Your task to perform on an android device: remove spam from my inbox in the gmail app Image 0: 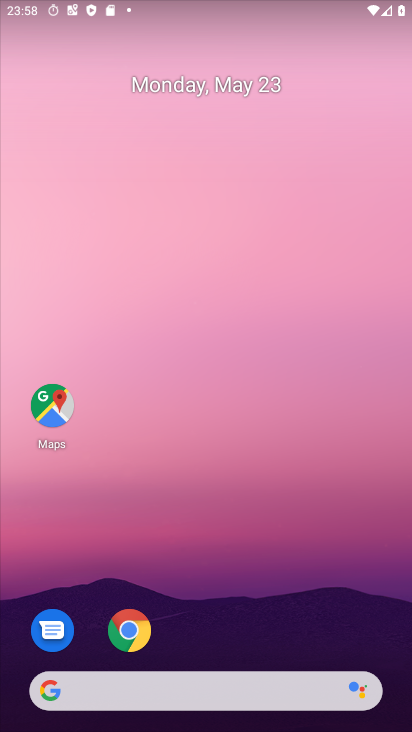
Step 0: drag from (339, 639) to (356, 10)
Your task to perform on an android device: remove spam from my inbox in the gmail app Image 1: 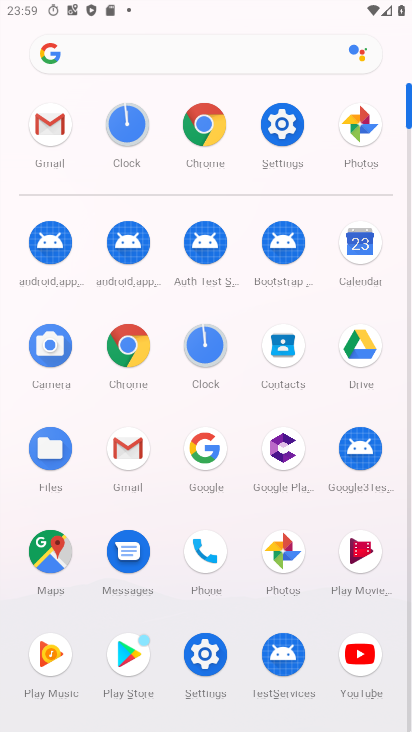
Step 1: click (48, 142)
Your task to perform on an android device: remove spam from my inbox in the gmail app Image 2: 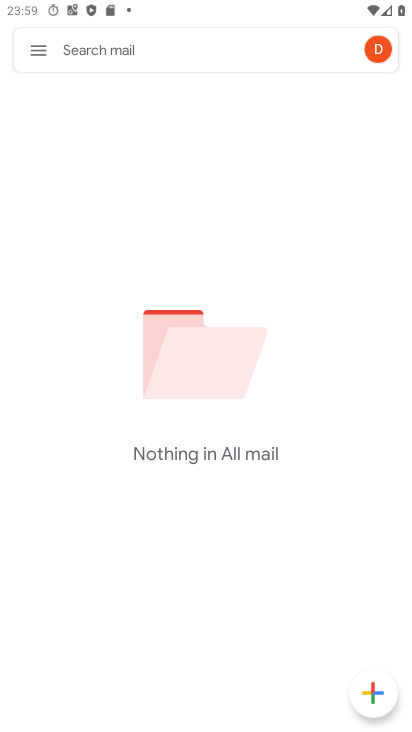
Step 2: click (41, 52)
Your task to perform on an android device: remove spam from my inbox in the gmail app Image 3: 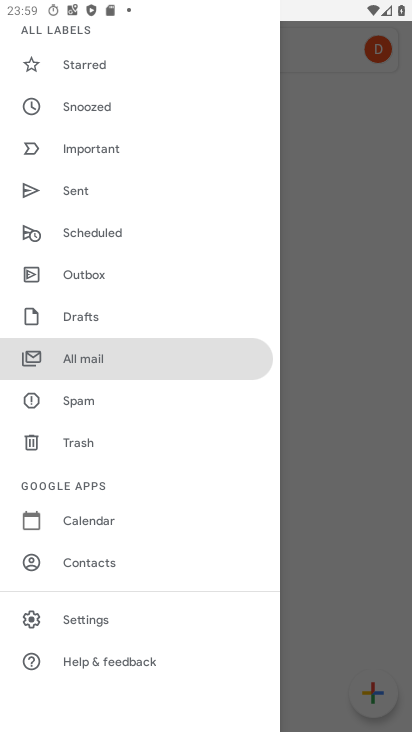
Step 3: click (78, 398)
Your task to perform on an android device: remove spam from my inbox in the gmail app Image 4: 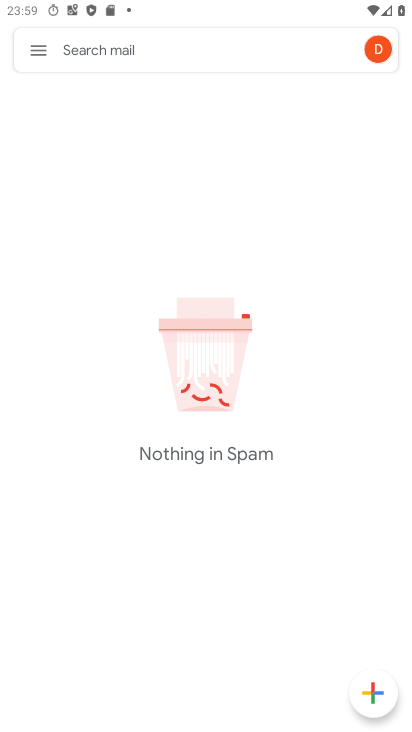
Step 4: task complete